Your task to perform on an android device: turn off sleep mode Image 0: 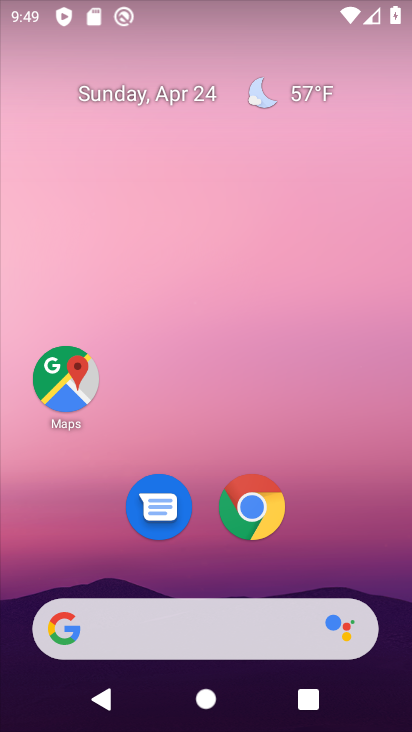
Step 0: drag from (149, 597) to (267, 47)
Your task to perform on an android device: turn off sleep mode Image 1: 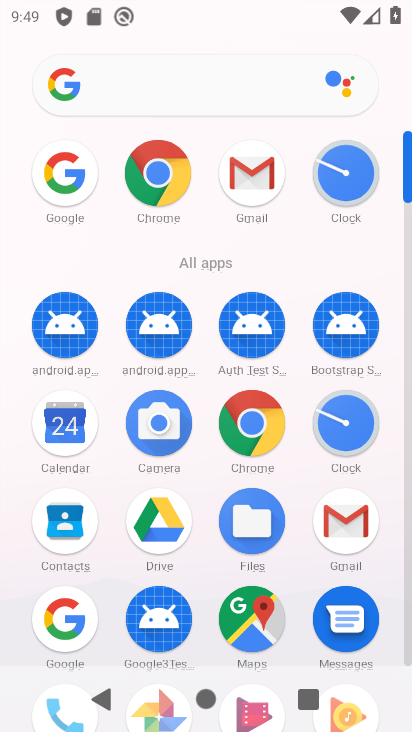
Step 1: drag from (225, 581) to (294, 266)
Your task to perform on an android device: turn off sleep mode Image 2: 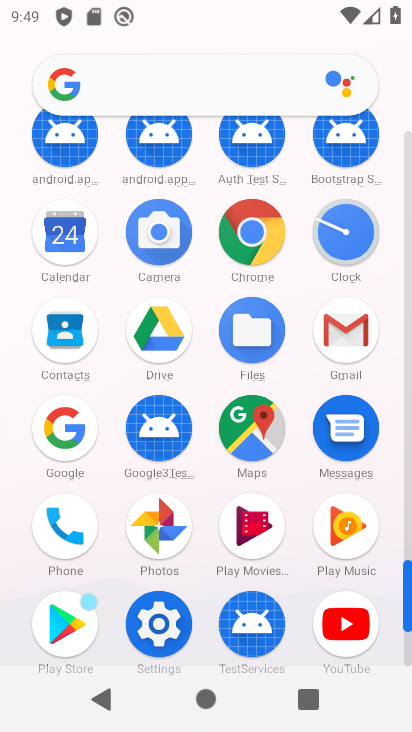
Step 2: click (155, 637)
Your task to perform on an android device: turn off sleep mode Image 3: 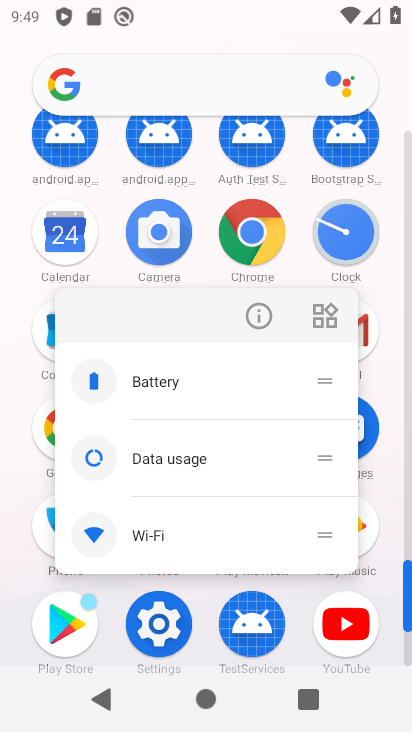
Step 3: click (161, 628)
Your task to perform on an android device: turn off sleep mode Image 4: 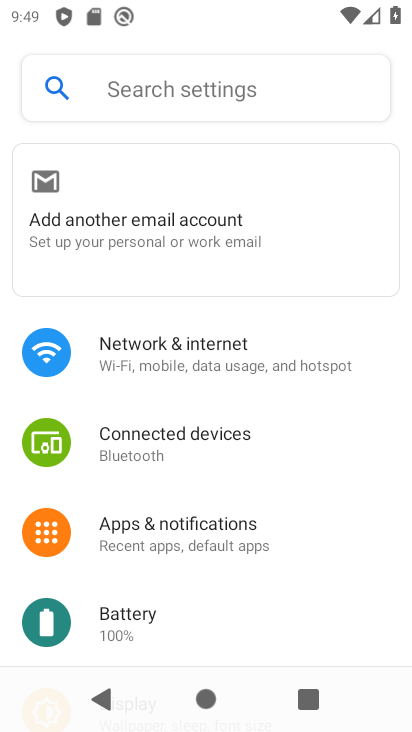
Step 4: drag from (192, 573) to (258, 237)
Your task to perform on an android device: turn off sleep mode Image 5: 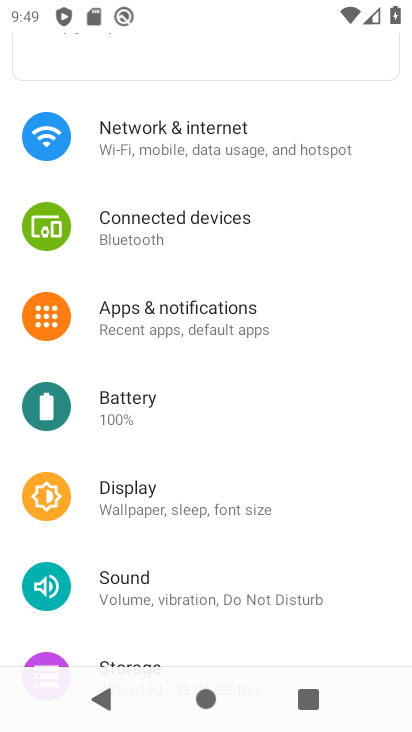
Step 5: click (125, 509)
Your task to perform on an android device: turn off sleep mode Image 6: 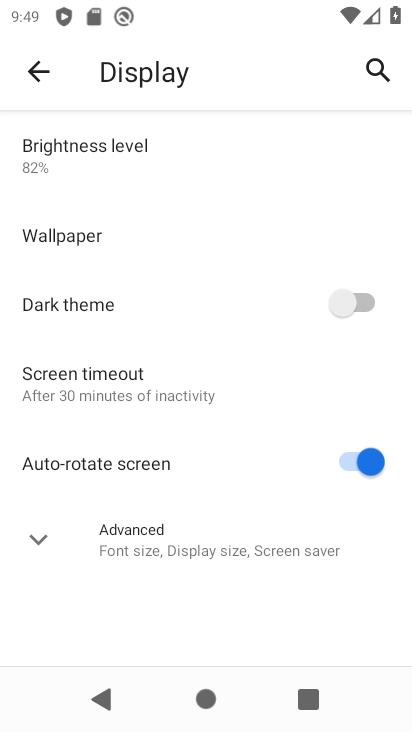
Step 6: click (280, 541)
Your task to perform on an android device: turn off sleep mode Image 7: 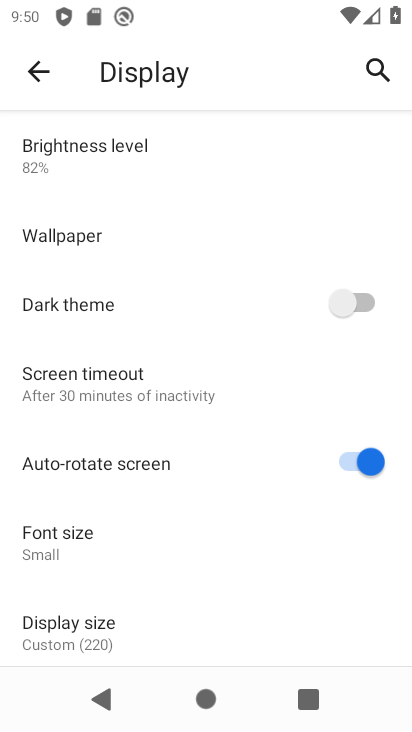
Step 7: task complete